Your task to perform on an android device: move an email to a new category in the gmail app Image 0: 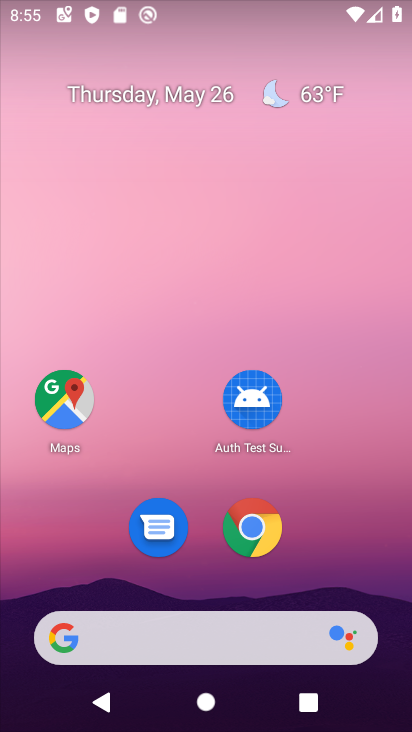
Step 0: drag from (315, 552) to (357, 27)
Your task to perform on an android device: move an email to a new category in the gmail app Image 1: 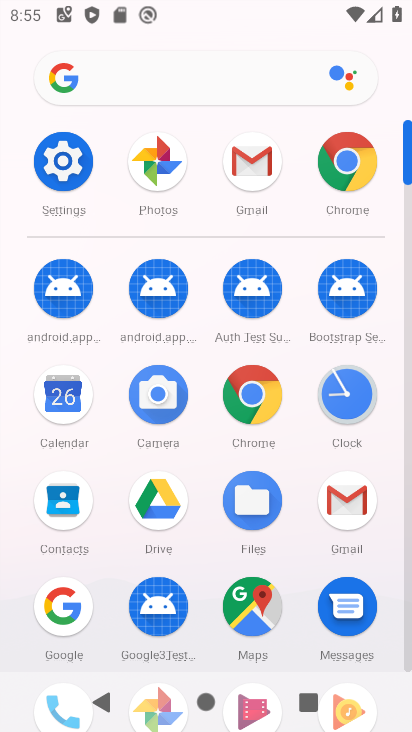
Step 1: click (272, 170)
Your task to perform on an android device: move an email to a new category in the gmail app Image 2: 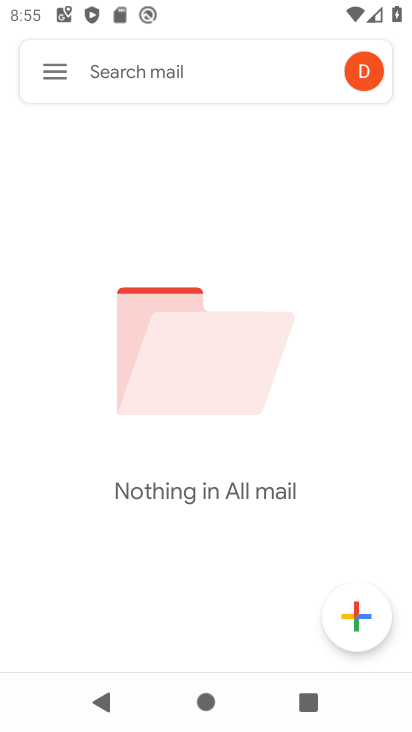
Step 2: click (53, 84)
Your task to perform on an android device: move an email to a new category in the gmail app Image 3: 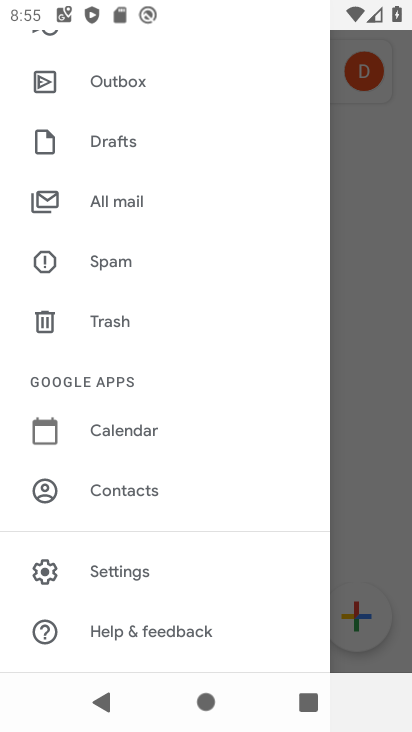
Step 3: click (112, 709)
Your task to perform on an android device: move an email to a new category in the gmail app Image 4: 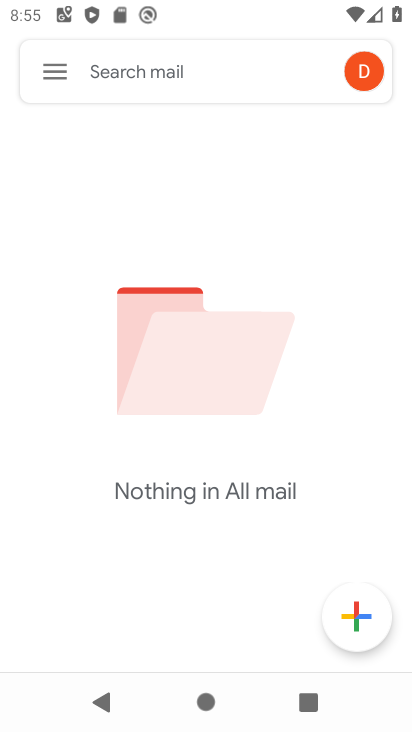
Step 4: task complete